Your task to perform on an android device: open wifi settings Image 0: 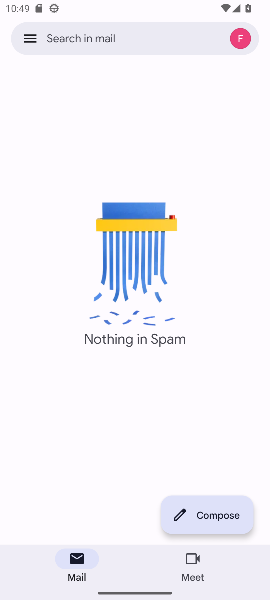
Step 0: press home button
Your task to perform on an android device: open wifi settings Image 1: 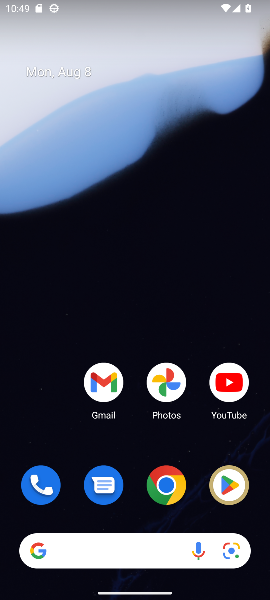
Step 1: drag from (100, 2) to (154, 487)
Your task to perform on an android device: open wifi settings Image 2: 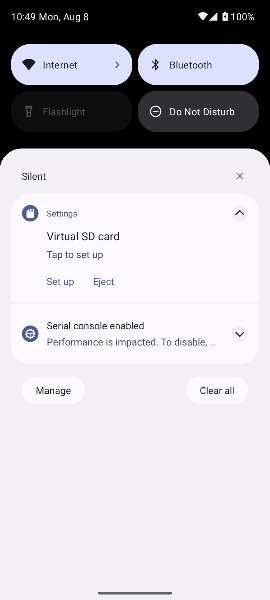
Step 2: click (55, 62)
Your task to perform on an android device: open wifi settings Image 3: 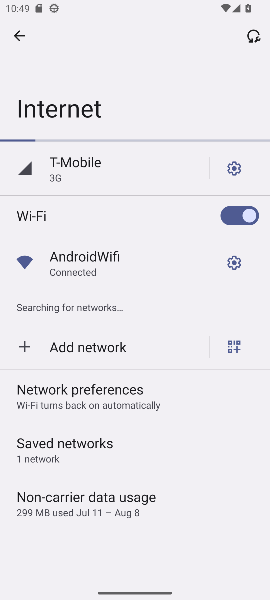
Step 3: task complete